Your task to perform on an android device: Show me the alarms in the clock app Image 0: 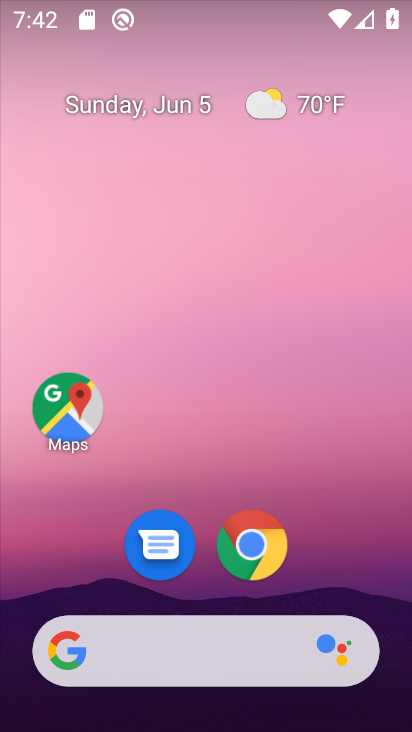
Step 0: drag from (208, 621) to (190, 156)
Your task to perform on an android device: Show me the alarms in the clock app Image 1: 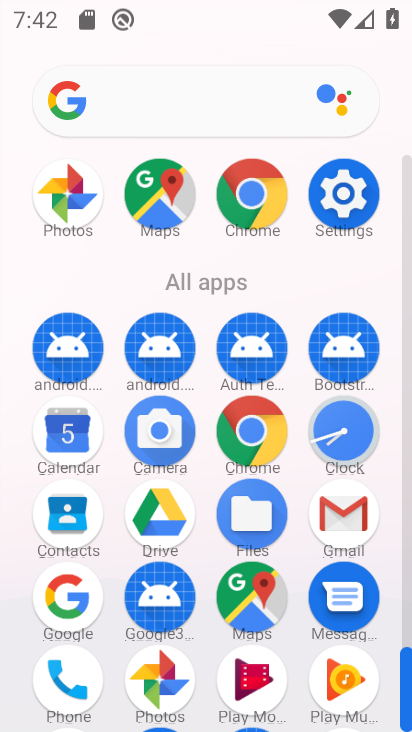
Step 1: click (349, 436)
Your task to perform on an android device: Show me the alarms in the clock app Image 2: 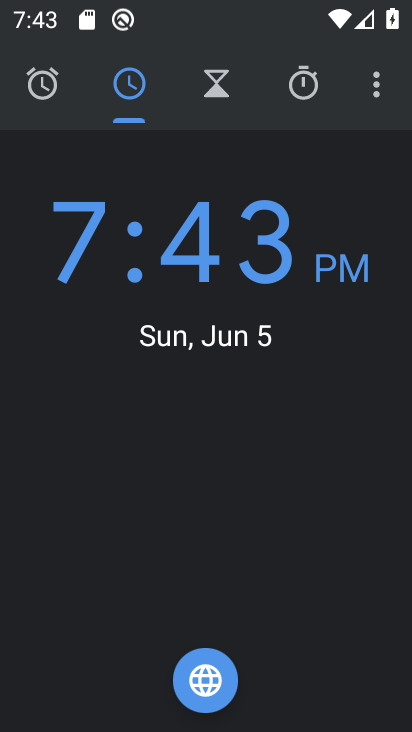
Step 2: click (53, 101)
Your task to perform on an android device: Show me the alarms in the clock app Image 3: 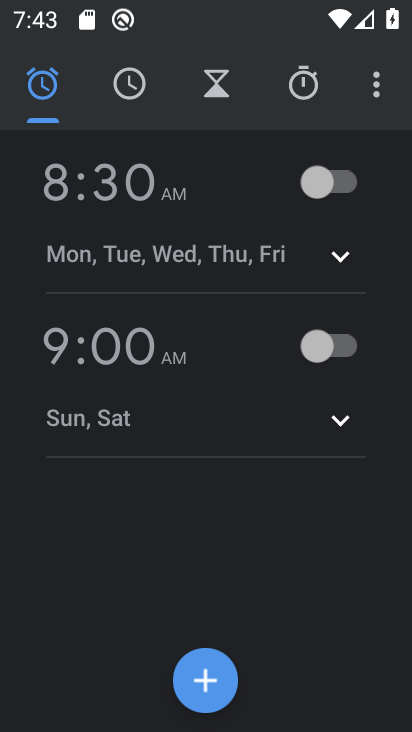
Step 3: task complete